Your task to perform on an android device: Do I have any events this weekend? Image 0: 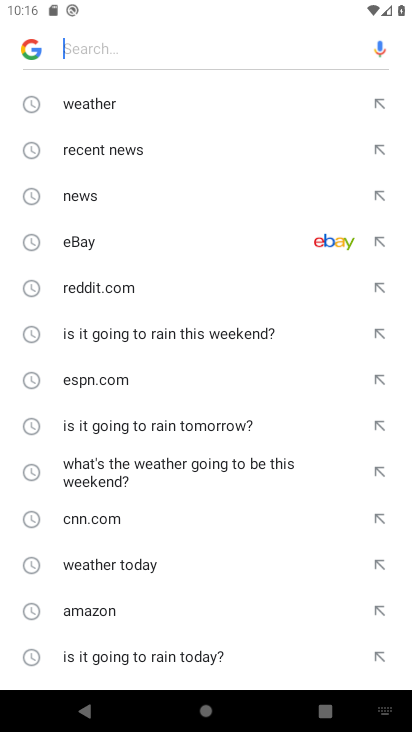
Step 0: press home button
Your task to perform on an android device: Do I have any events this weekend? Image 1: 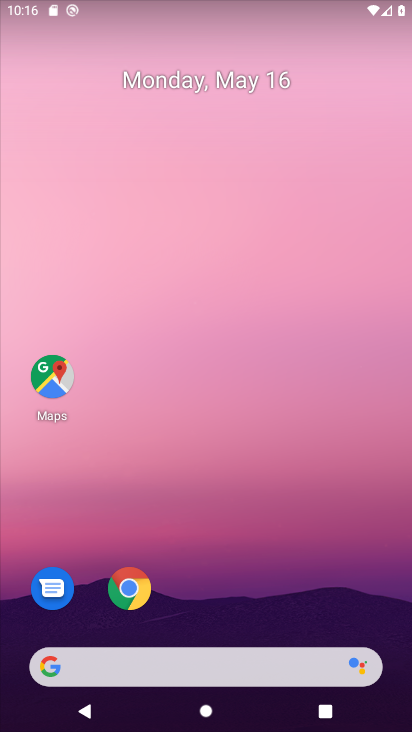
Step 1: drag from (9, 235) to (389, 255)
Your task to perform on an android device: Do I have any events this weekend? Image 2: 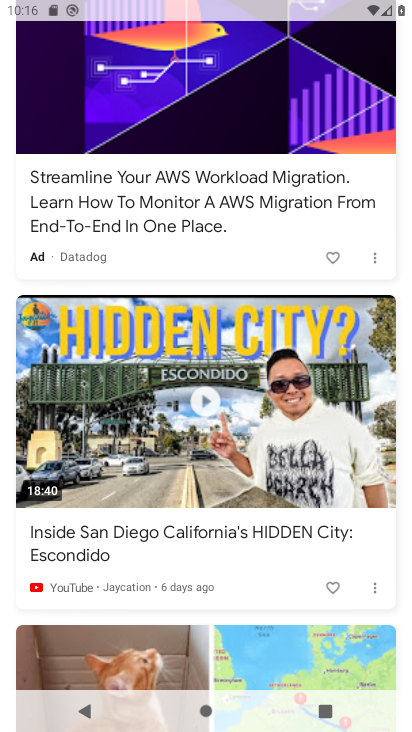
Step 2: drag from (173, 67) to (197, 720)
Your task to perform on an android device: Do I have any events this weekend? Image 3: 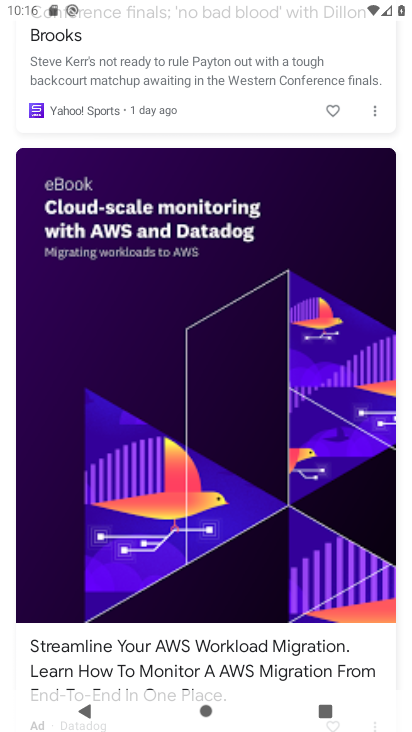
Step 3: drag from (232, 92) to (243, 724)
Your task to perform on an android device: Do I have any events this weekend? Image 4: 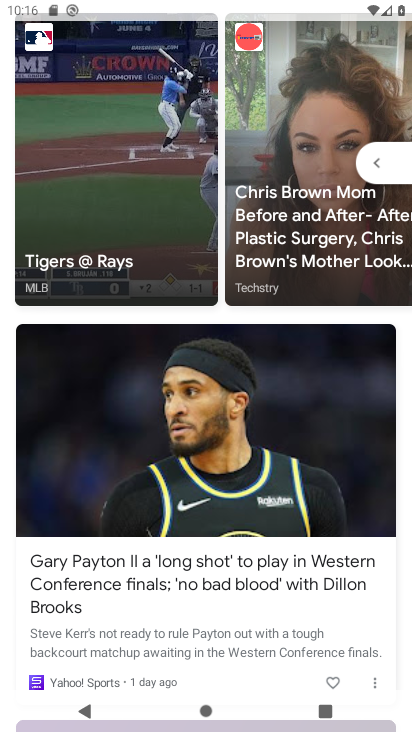
Step 4: drag from (216, 140) to (220, 715)
Your task to perform on an android device: Do I have any events this weekend? Image 5: 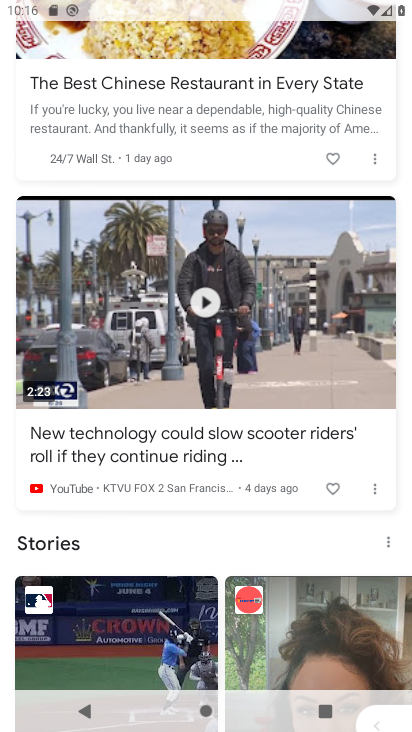
Step 5: drag from (217, 103) to (234, 708)
Your task to perform on an android device: Do I have any events this weekend? Image 6: 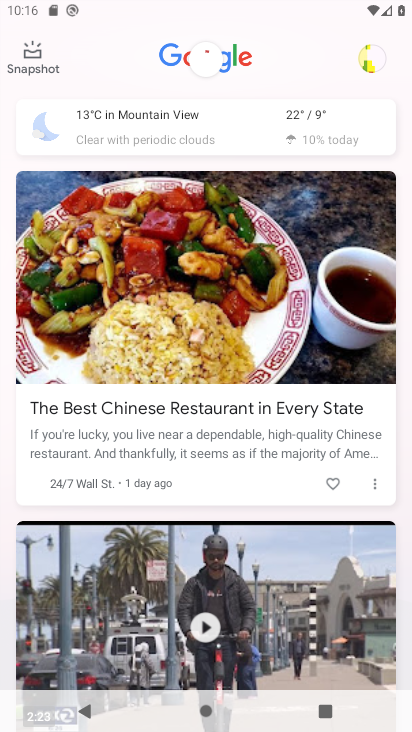
Step 6: click (304, 111)
Your task to perform on an android device: Do I have any events this weekend? Image 7: 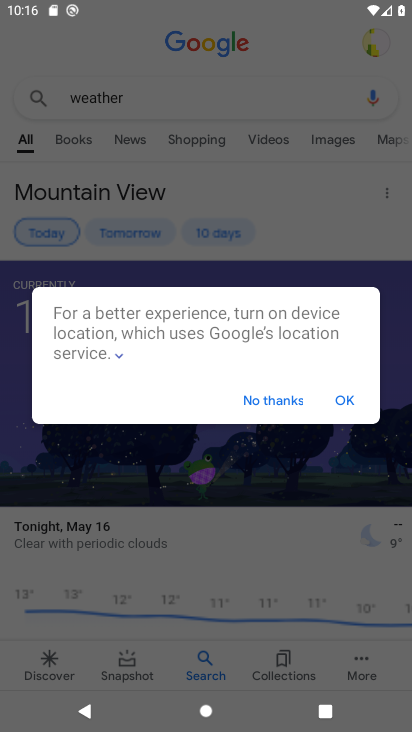
Step 7: click (269, 391)
Your task to perform on an android device: Do I have any events this weekend? Image 8: 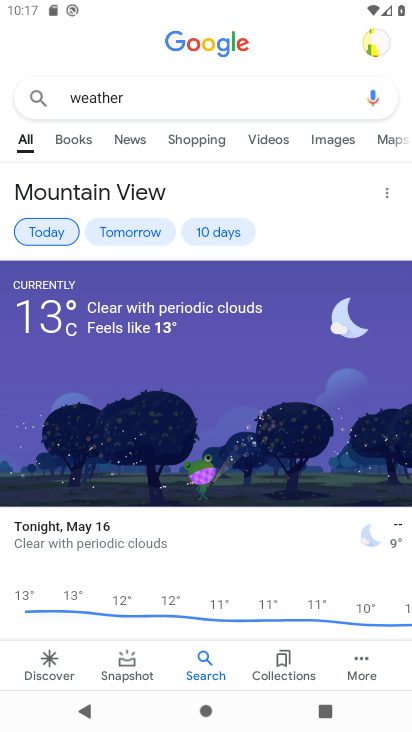
Step 8: click (220, 226)
Your task to perform on an android device: Do I have any events this weekend? Image 9: 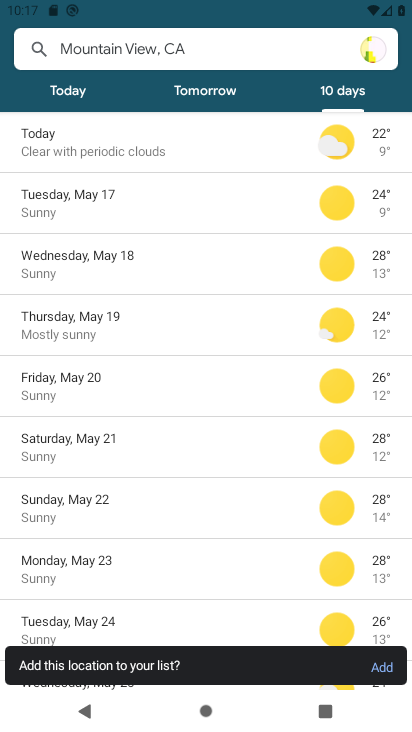
Step 9: task complete